Your task to perform on an android device: toggle improve location accuracy Image 0: 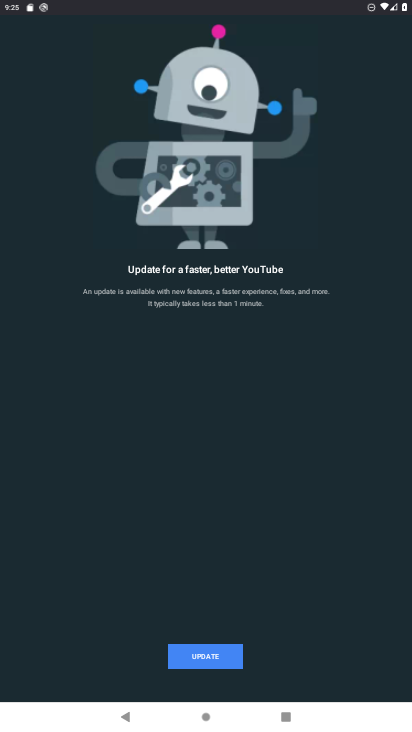
Step 0: press home button
Your task to perform on an android device: toggle improve location accuracy Image 1: 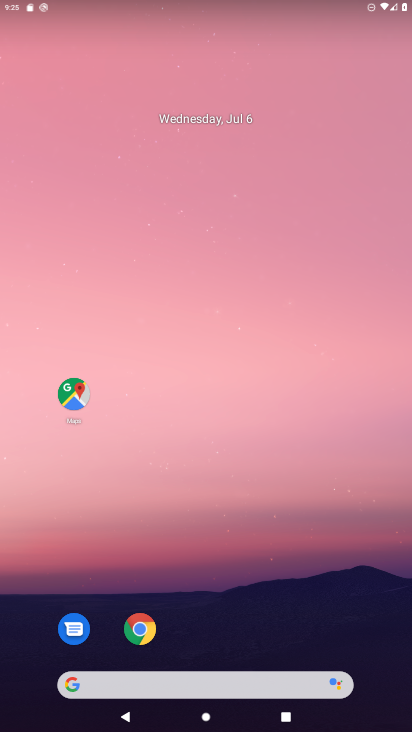
Step 1: drag from (256, 673) to (323, 62)
Your task to perform on an android device: toggle improve location accuracy Image 2: 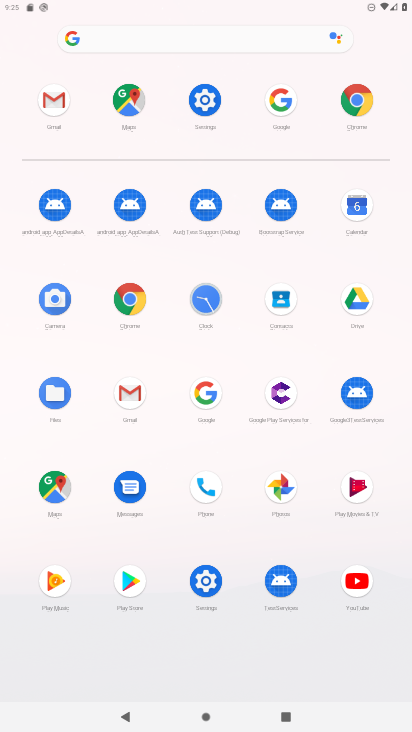
Step 2: click (211, 104)
Your task to perform on an android device: toggle improve location accuracy Image 3: 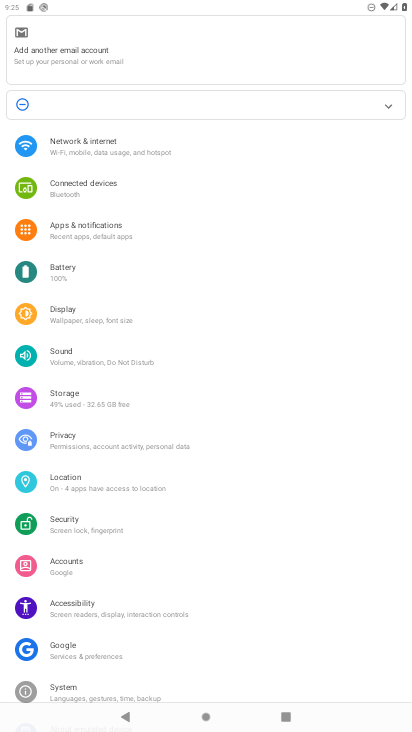
Step 3: click (110, 476)
Your task to perform on an android device: toggle improve location accuracy Image 4: 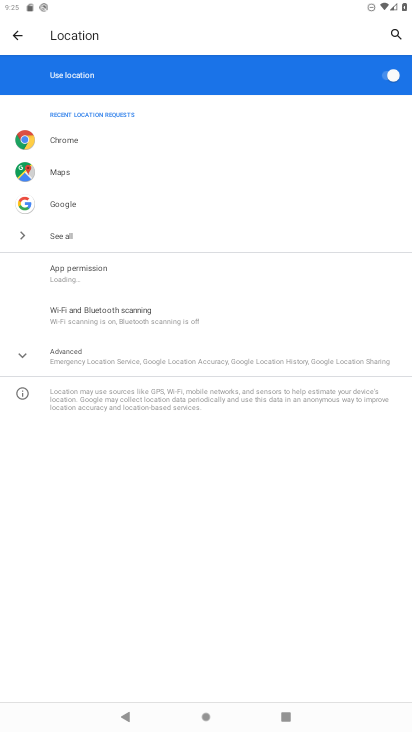
Step 4: click (132, 360)
Your task to perform on an android device: toggle improve location accuracy Image 5: 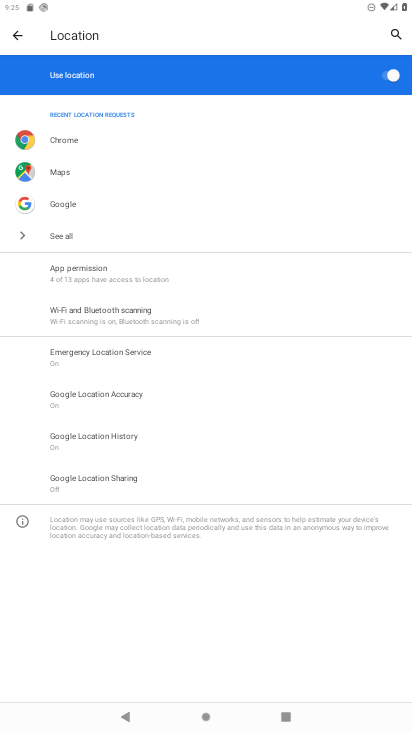
Step 5: click (117, 393)
Your task to perform on an android device: toggle improve location accuracy Image 6: 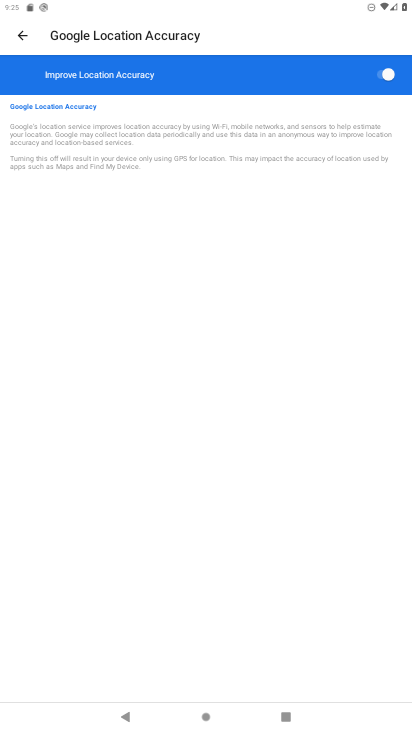
Step 6: click (392, 77)
Your task to perform on an android device: toggle improve location accuracy Image 7: 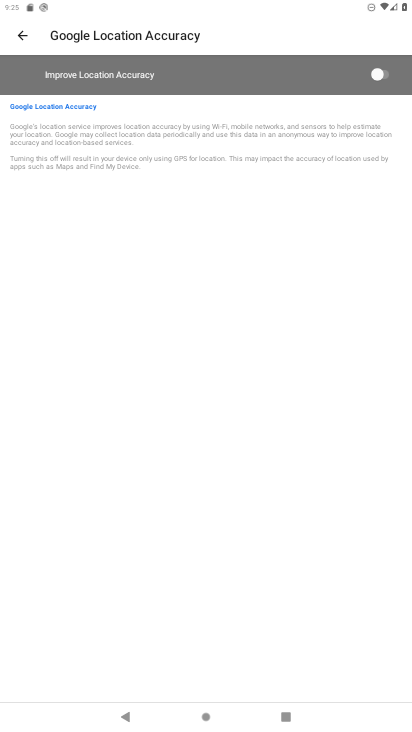
Step 7: task complete